Your task to perform on an android device: Show me popular videos on Youtube Image 0: 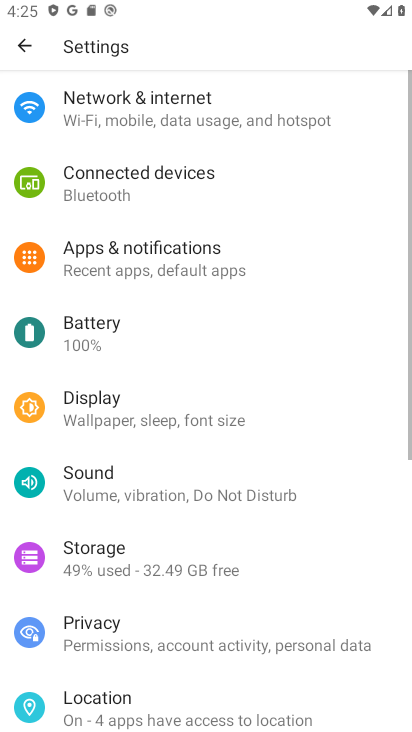
Step 0: click (15, 46)
Your task to perform on an android device: Show me popular videos on Youtube Image 1: 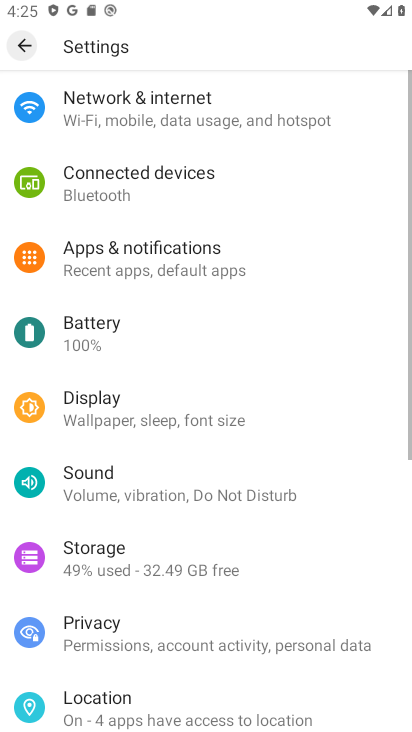
Step 1: click (19, 47)
Your task to perform on an android device: Show me popular videos on Youtube Image 2: 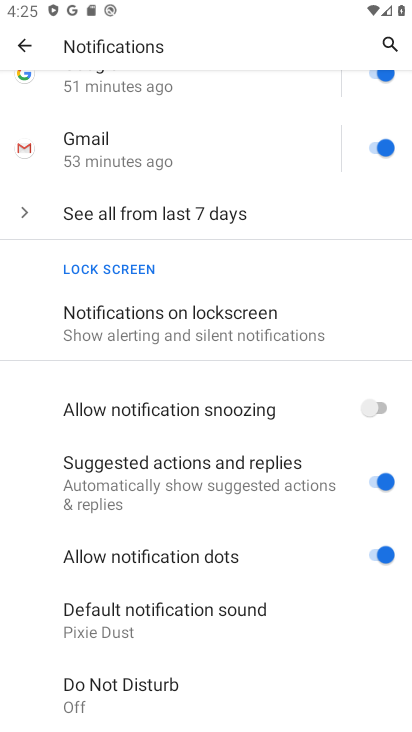
Step 2: click (40, 56)
Your task to perform on an android device: Show me popular videos on Youtube Image 3: 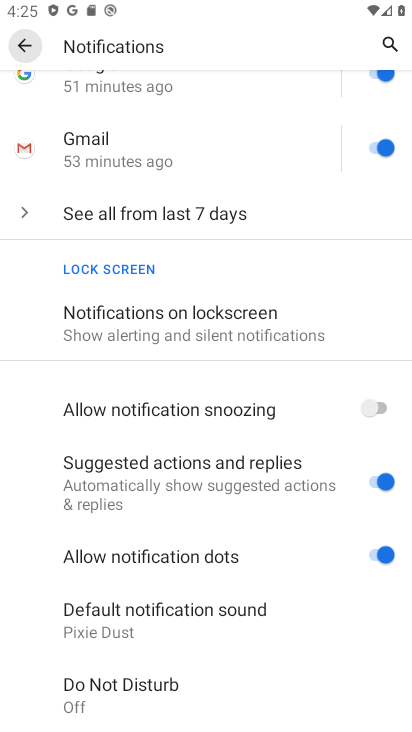
Step 3: click (35, 49)
Your task to perform on an android device: Show me popular videos on Youtube Image 4: 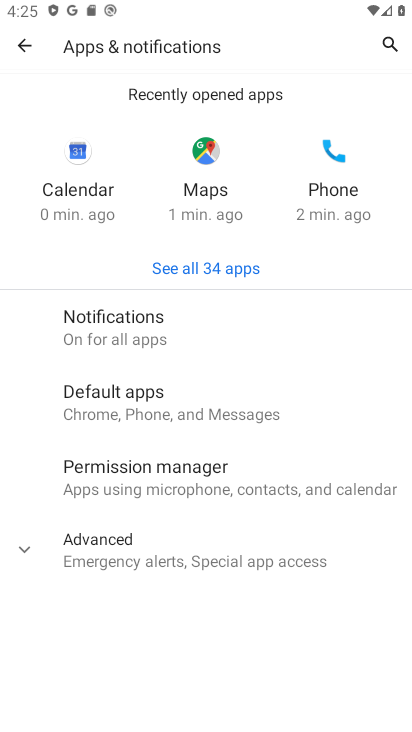
Step 4: click (27, 40)
Your task to perform on an android device: Show me popular videos on Youtube Image 5: 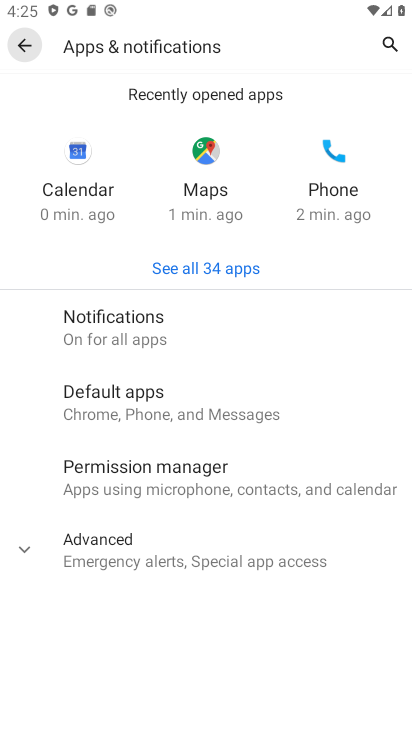
Step 5: click (27, 39)
Your task to perform on an android device: Show me popular videos on Youtube Image 6: 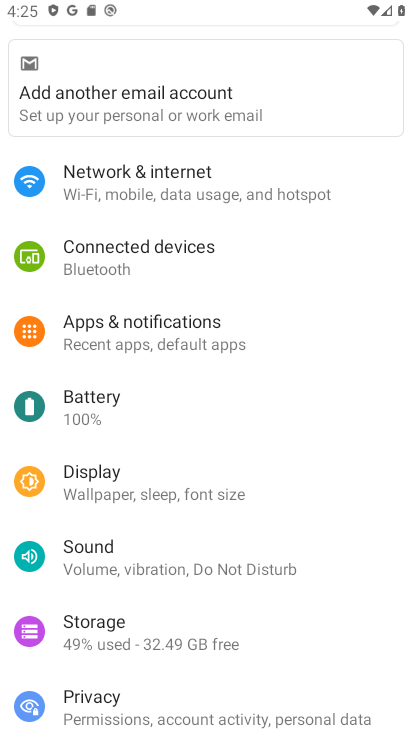
Step 6: press back button
Your task to perform on an android device: Show me popular videos on Youtube Image 7: 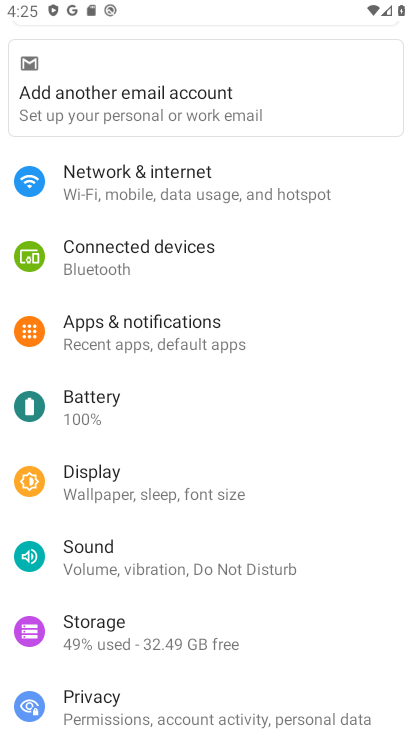
Step 7: press back button
Your task to perform on an android device: Show me popular videos on Youtube Image 8: 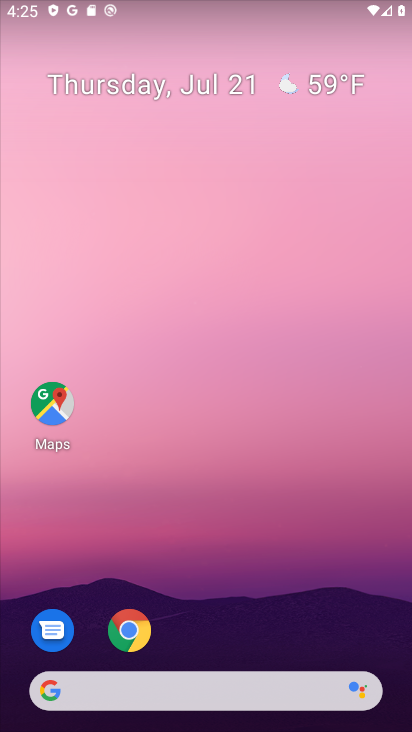
Step 8: drag from (225, 651) to (167, 226)
Your task to perform on an android device: Show me popular videos on Youtube Image 9: 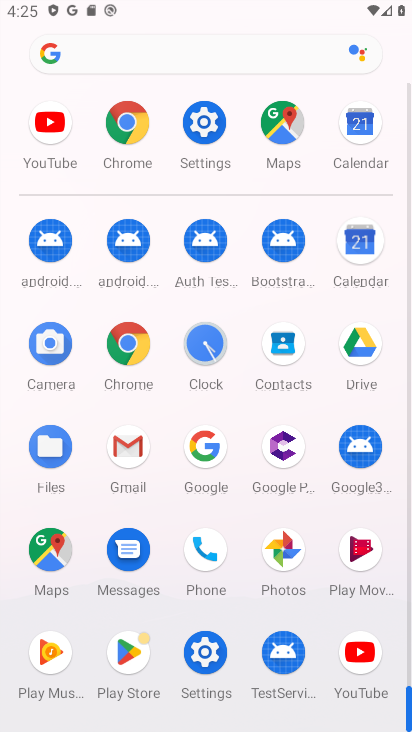
Step 9: click (355, 653)
Your task to perform on an android device: Show me popular videos on Youtube Image 10: 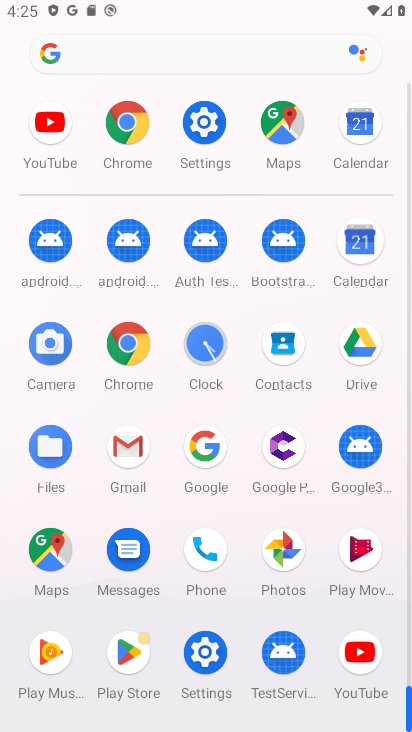
Step 10: click (356, 649)
Your task to perform on an android device: Show me popular videos on Youtube Image 11: 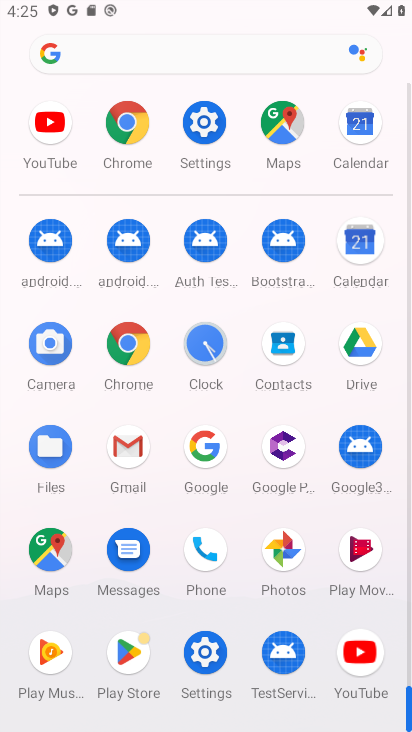
Step 11: click (356, 649)
Your task to perform on an android device: Show me popular videos on Youtube Image 12: 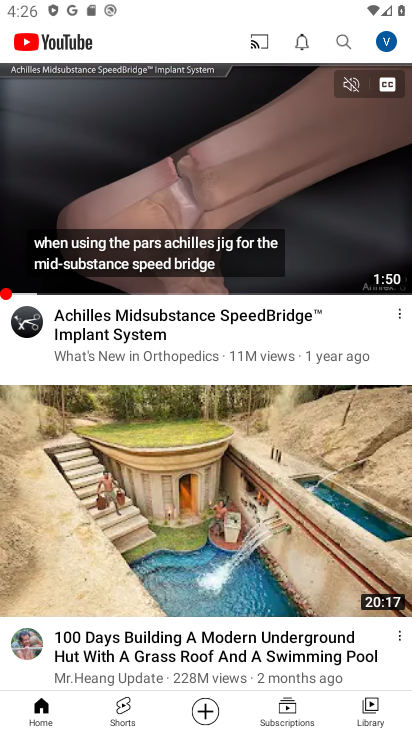
Step 12: task complete